Your task to perform on an android device: What's the weather today? Image 0: 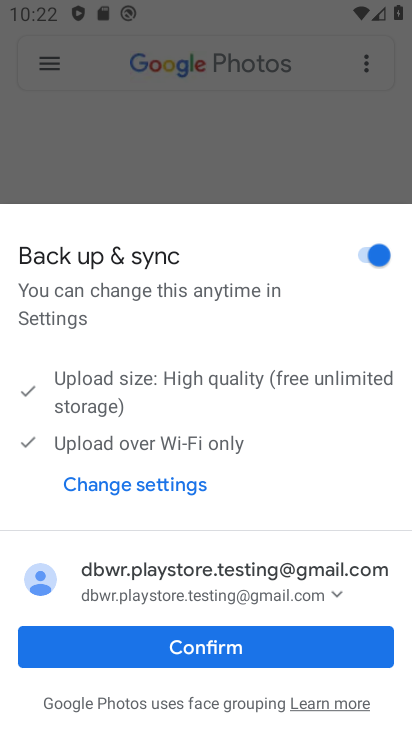
Step 0: click (277, 643)
Your task to perform on an android device: What's the weather today? Image 1: 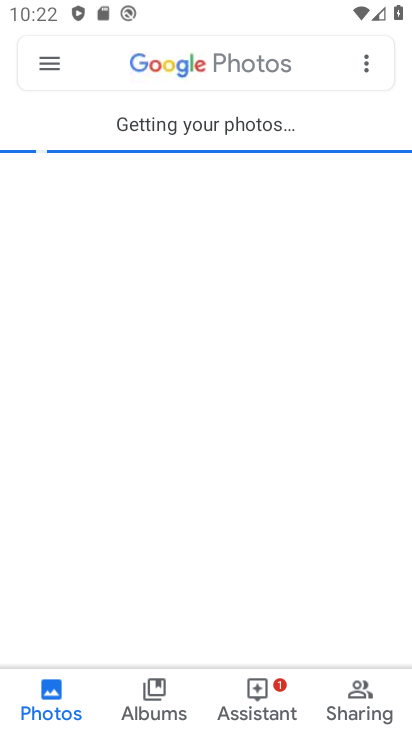
Step 1: press home button
Your task to perform on an android device: What's the weather today? Image 2: 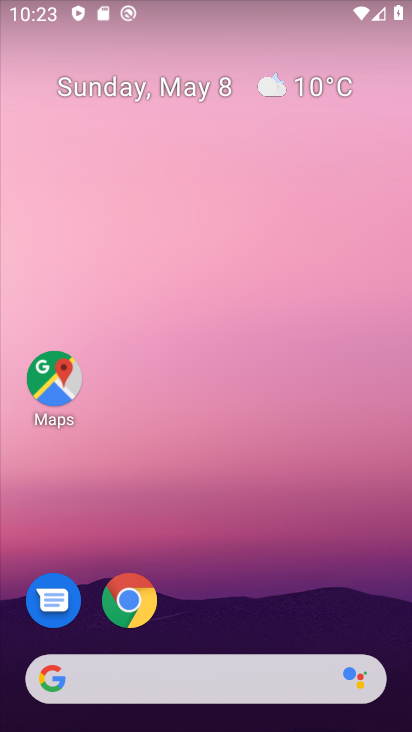
Step 2: click (295, 89)
Your task to perform on an android device: What's the weather today? Image 3: 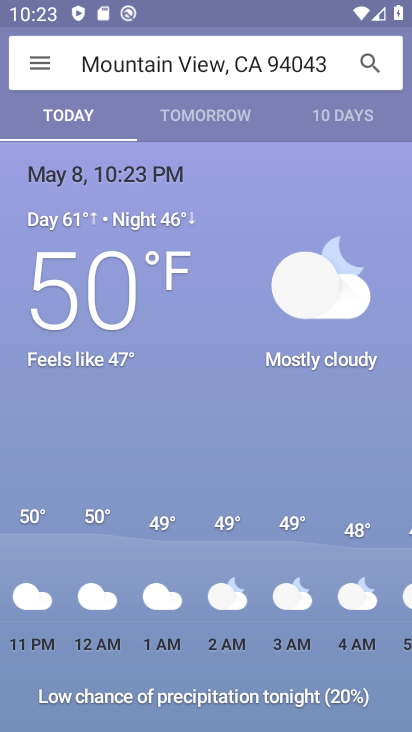
Step 3: task complete